Your task to perform on an android device: Go to ESPN.com Image 0: 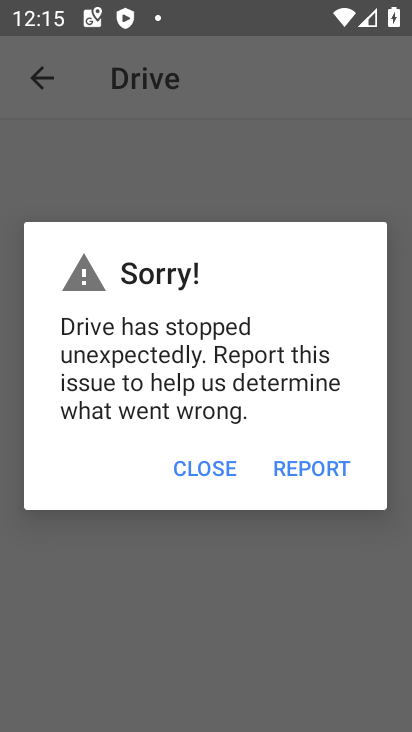
Step 0: press home button
Your task to perform on an android device: Go to ESPN.com Image 1: 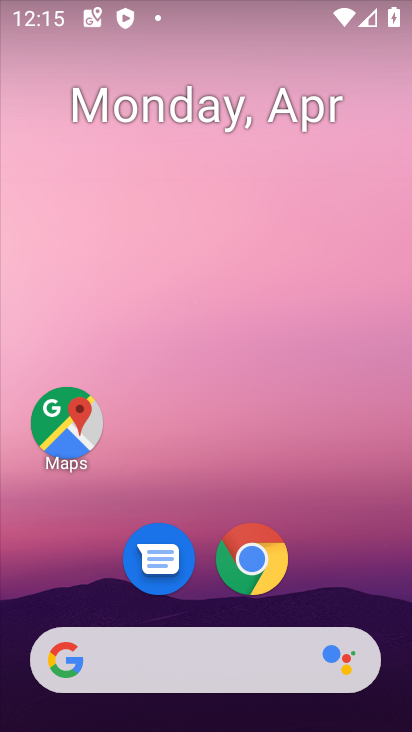
Step 1: click (262, 567)
Your task to perform on an android device: Go to ESPN.com Image 2: 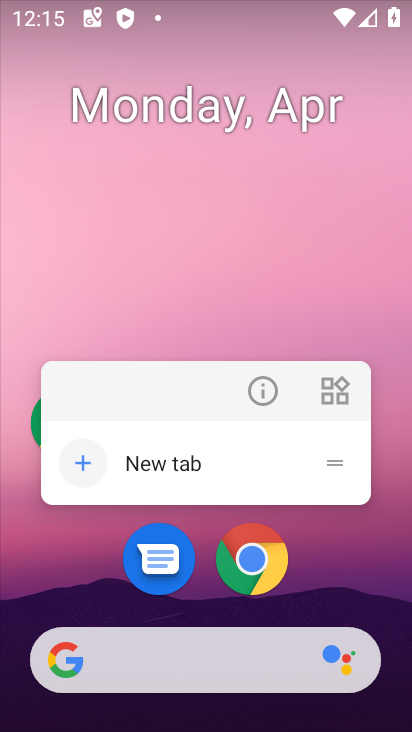
Step 2: click (264, 400)
Your task to perform on an android device: Go to ESPN.com Image 3: 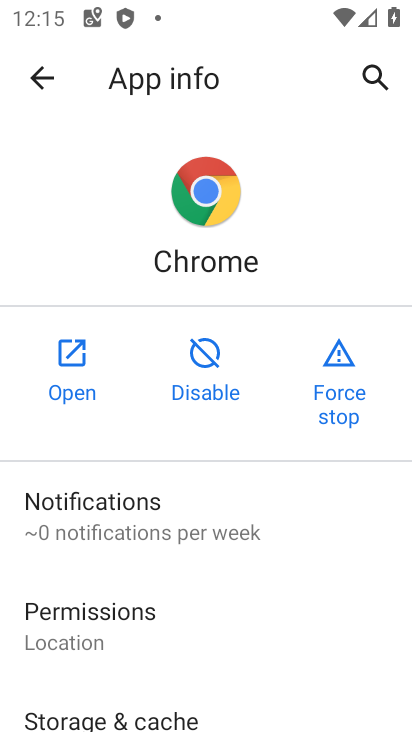
Step 3: click (71, 388)
Your task to perform on an android device: Go to ESPN.com Image 4: 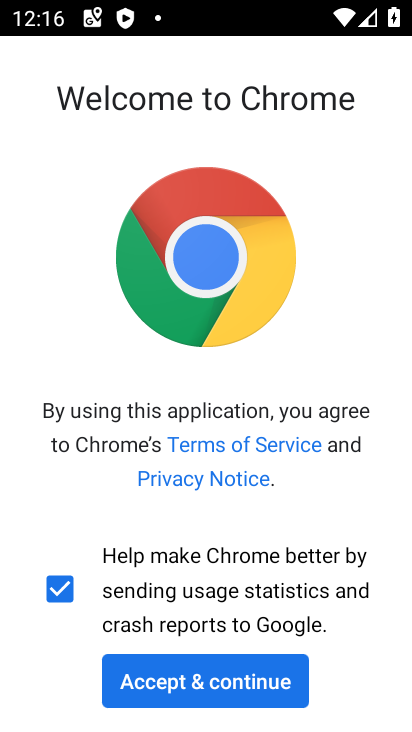
Step 4: click (219, 685)
Your task to perform on an android device: Go to ESPN.com Image 5: 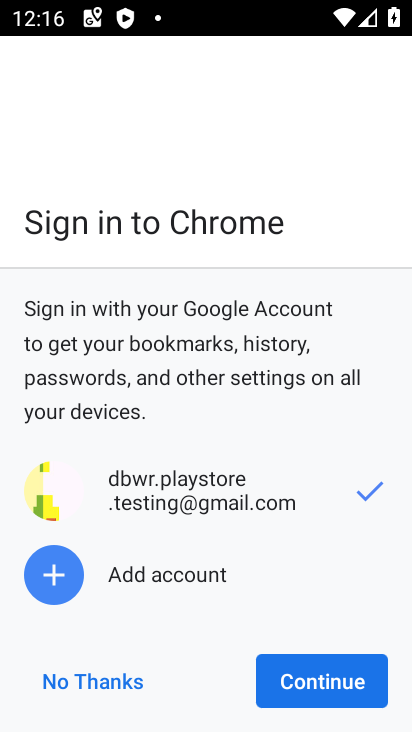
Step 5: click (319, 700)
Your task to perform on an android device: Go to ESPN.com Image 6: 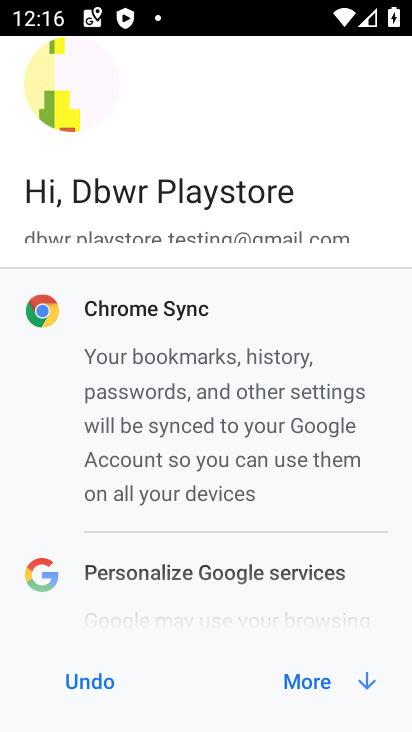
Step 6: click (322, 683)
Your task to perform on an android device: Go to ESPN.com Image 7: 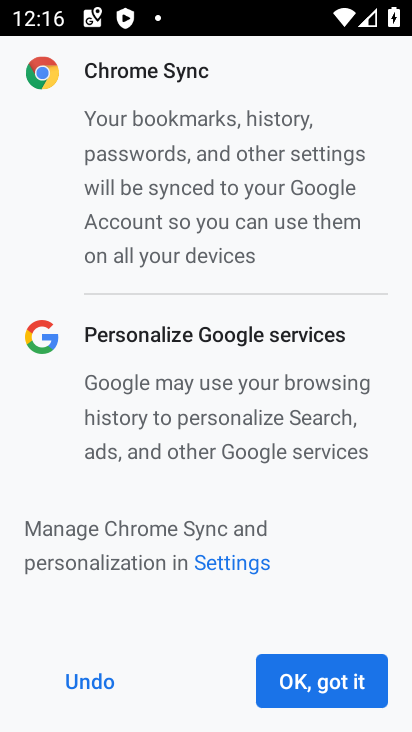
Step 7: click (347, 687)
Your task to perform on an android device: Go to ESPN.com Image 8: 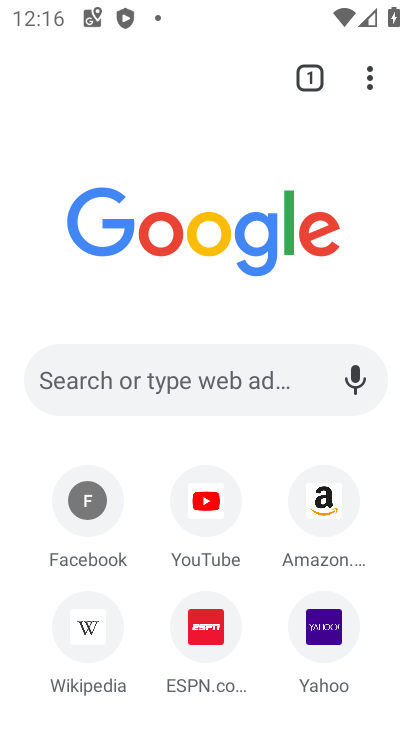
Step 8: click (194, 372)
Your task to perform on an android device: Go to ESPN.com Image 9: 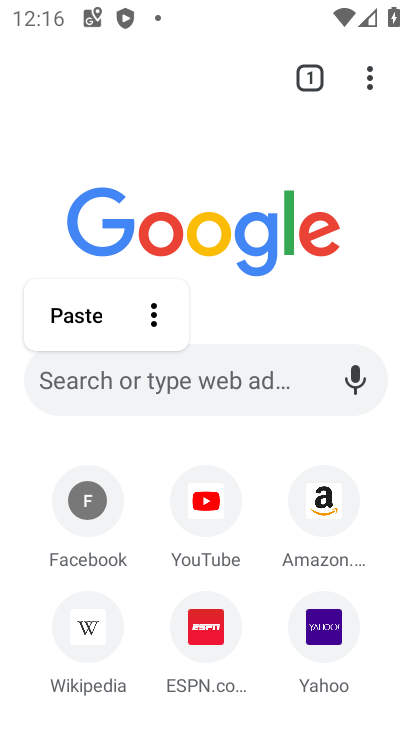
Step 9: click (232, 389)
Your task to perform on an android device: Go to ESPN.com Image 10: 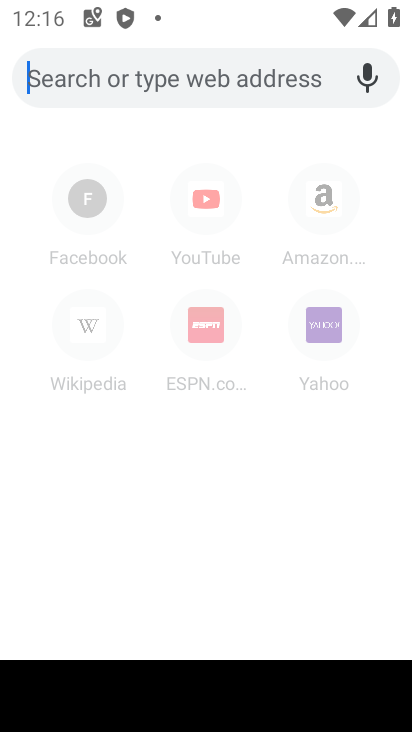
Step 10: type "ESPN.com"
Your task to perform on an android device: Go to ESPN.com Image 11: 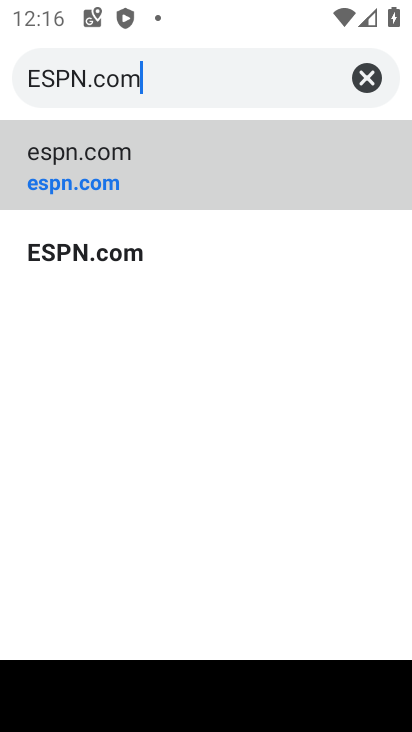
Step 11: type ""
Your task to perform on an android device: Go to ESPN.com Image 12: 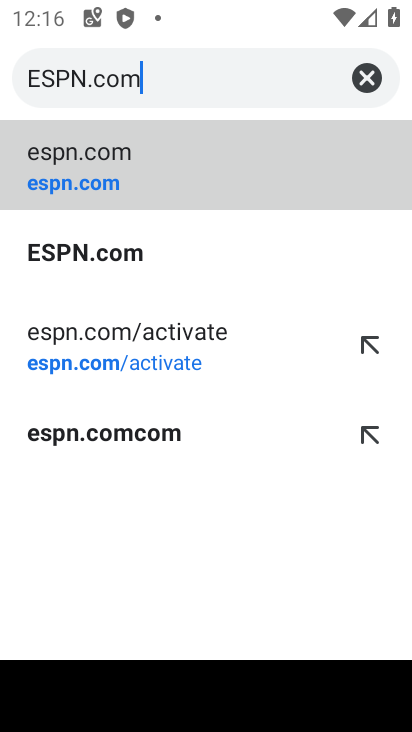
Step 12: click (249, 210)
Your task to perform on an android device: Go to ESPN.com Image 13: 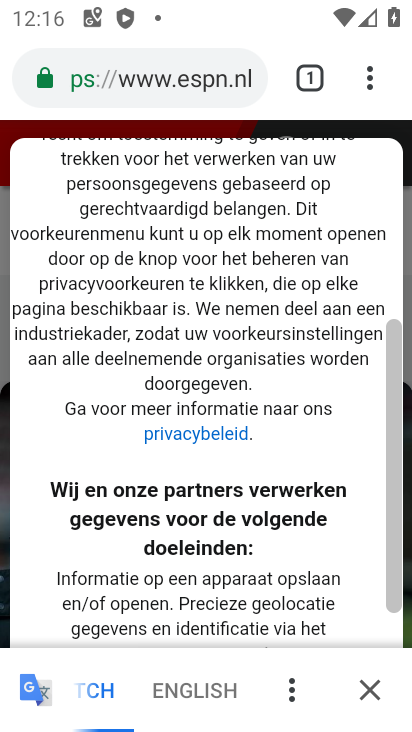
Step 13: task complete